Your task to perform on an android device: Set the phone to "Do not disturb". Image 0: 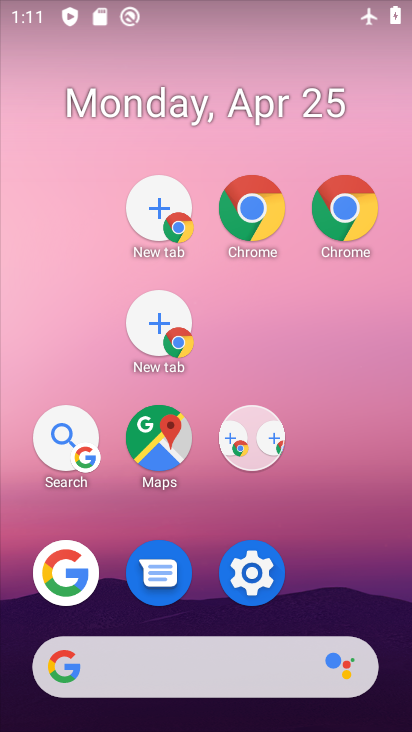
Step 0: drag from (300, 703) to (156, 183)
Your task to perform on an android device: Set the phone to "Do not disturb". Image 1: 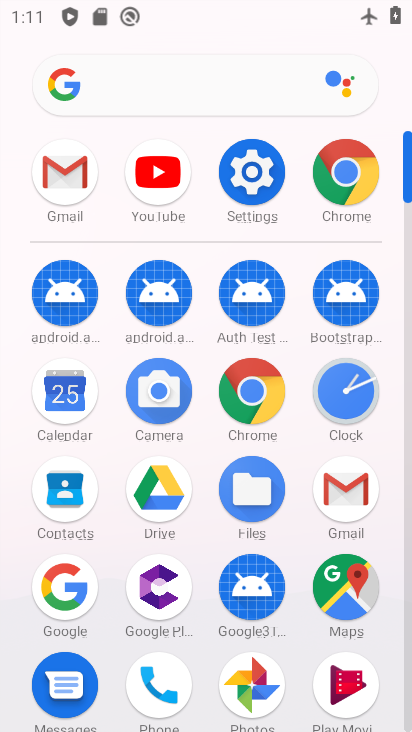
Step 1: click (248, 176)
Your task to perform on an android device: Set the phone to "Do not disturb". Image 2: 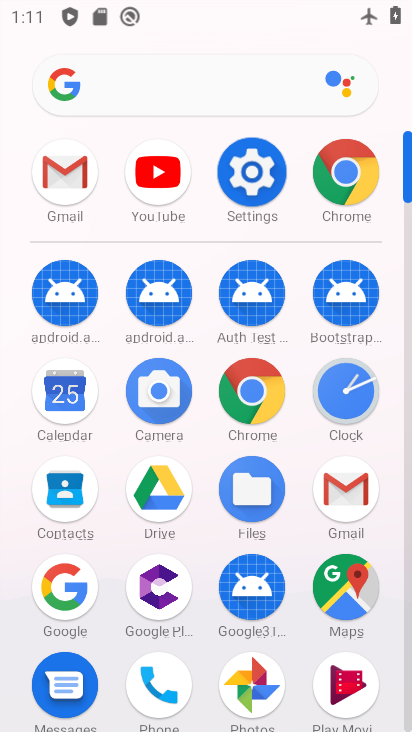
Step 2: click (248, 176)
Your task to perform on an android device: Set the phone to "Do not disturb". Image 3: 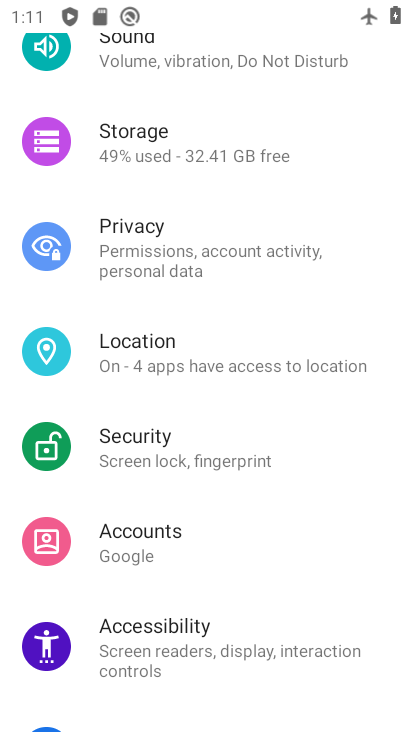
Step 3: drag from (131, 281) to (183, 645)
Your task to perform on an android device: Set the phone to "Do not disturb". Image 4: 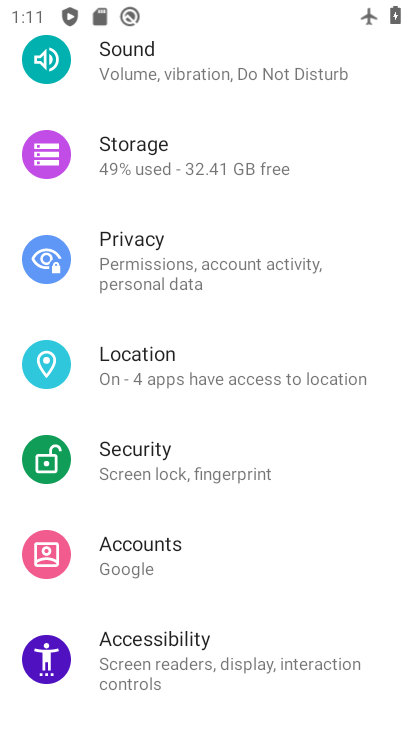
Step 4: drag from (221, 189) to (303, 603)
Your task to perform on an android device: Set the phone to "Do not disturb". Image 5: 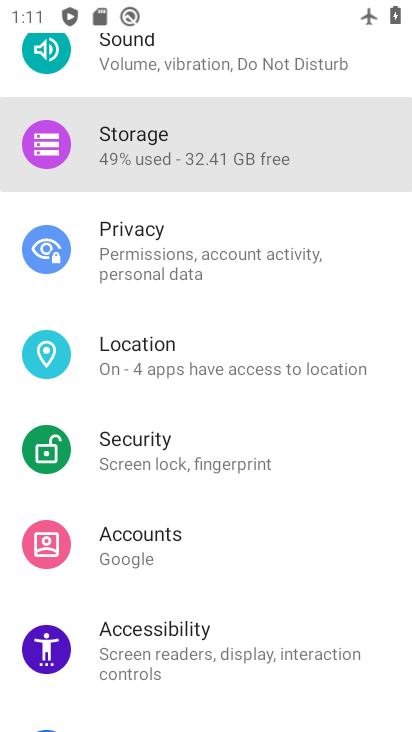
Step 5: drag from (211, 465) to (242, 664)
Your task to perform on an android device: Set the phone to "Do not disturb". Image 6: 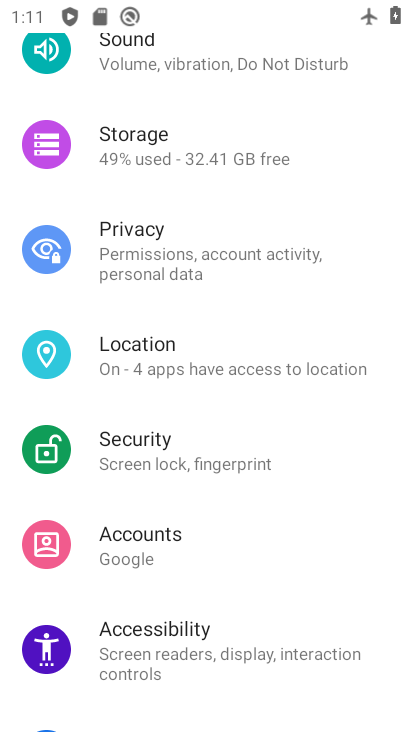
Step 6: drag from (158, 181) to (153, 520)
Your task to perform on an android device: Set the phone to "Do not disturb". Image 7: 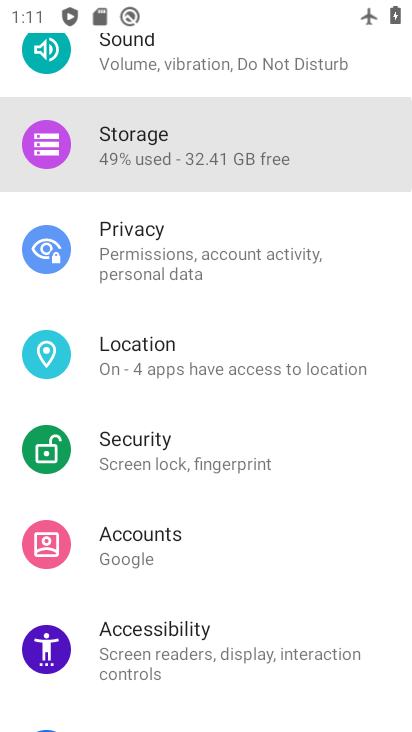
Step 7: click (178, 560)
Your task to perform on an android device: Set the phone to "Do not disturb". Image 8: 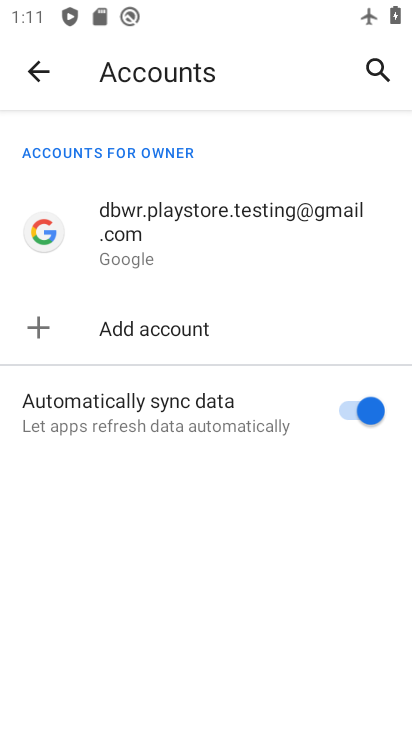
Step 8: click (31, 71)
Your task to perform on an android device: Set the phone to "Do not disturb". Image 9: 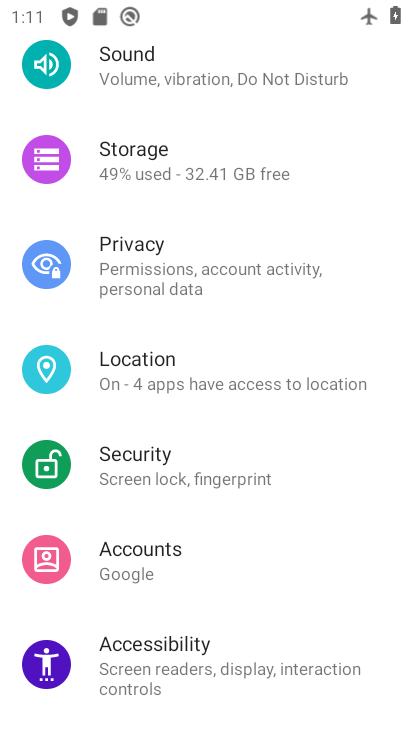
Step 9: click (174, 69)
Your task to perform on an android device: Set the phone to "Do not disturb". Image 10: 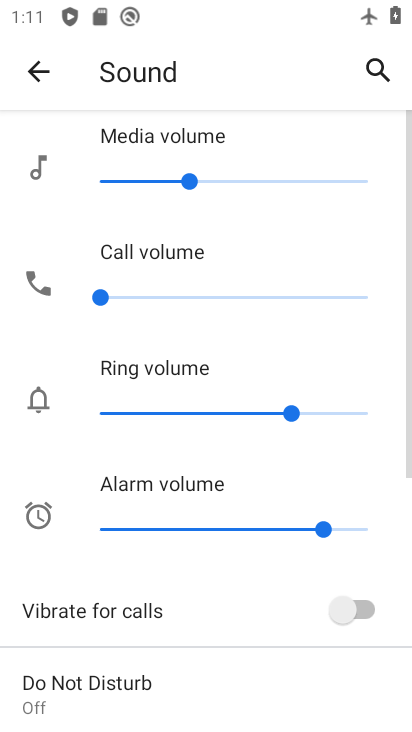
Step 10: drag from (202, 619) to (73, 162)
Your task to perform on an android device: Set the phone to "Do not disturb". Image 11: 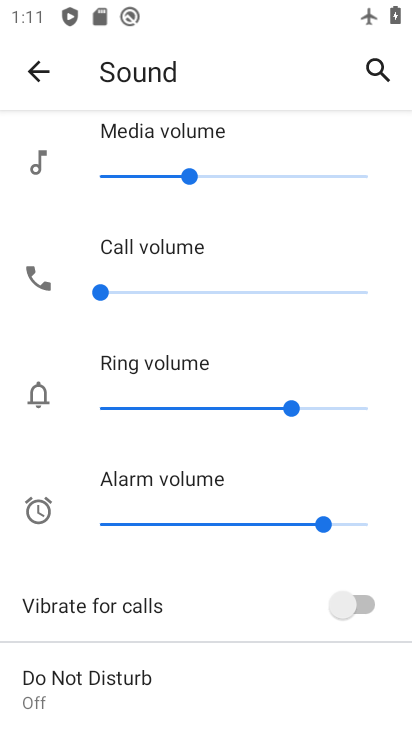
Step 11: click (52, 684)
Your task to perform on an android device: Set the phone to "Do not disturb". Image 12: 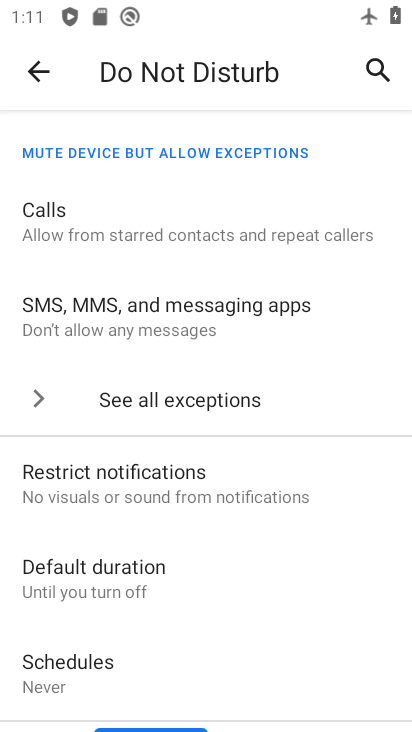
Step 12: drag from (144, 600) to (60, 169)
Your task to perform on an android device: Set the phone to "Do not disturb". Image 13: 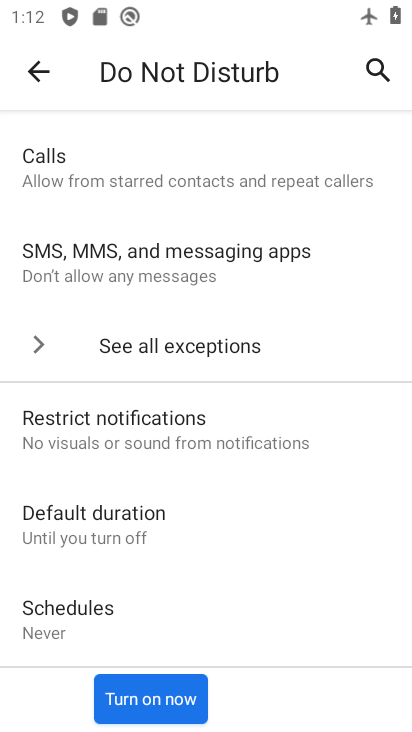
Step 13: click (163, 700)
Your task to perform on an android device: Set the phone to "Do not disturb". Image 14: 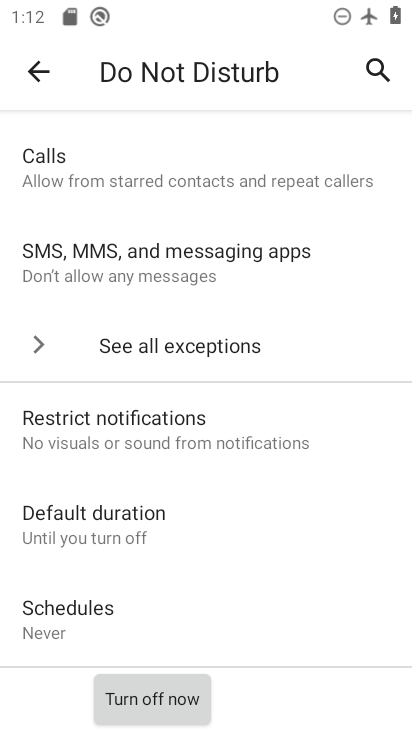
Step 14: task complete